Your task to perform on an android device: When is my next appointment? Image 0: 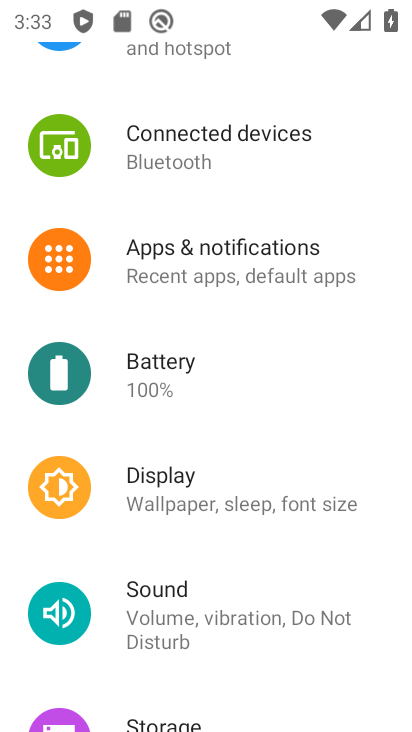
Step 0: press home button
Your task to perform on an android device: When is my next appointment? Image 1: 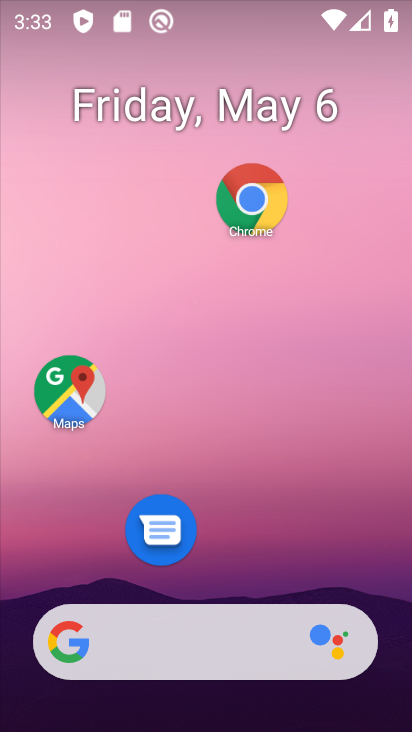
Step 1: drag from (293, 574) to (324, 256)
Your task to perform on an android device: When is my next appointment? Image 2: 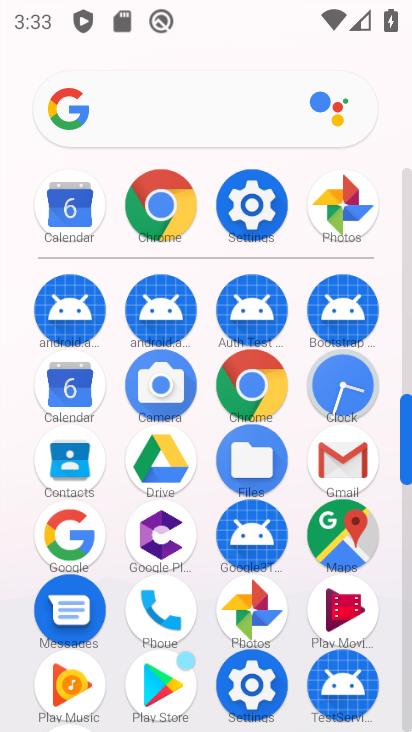
Step 2: click (72, 383)
Your task to perform on an android device: When is my next appointment? Image 3: 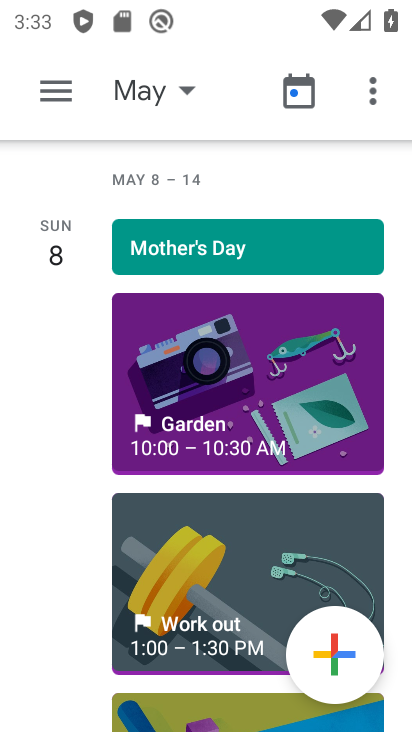
Step 3: task complete